Your task to perform on an android device: What's a good restaurant in New York? Image 0: 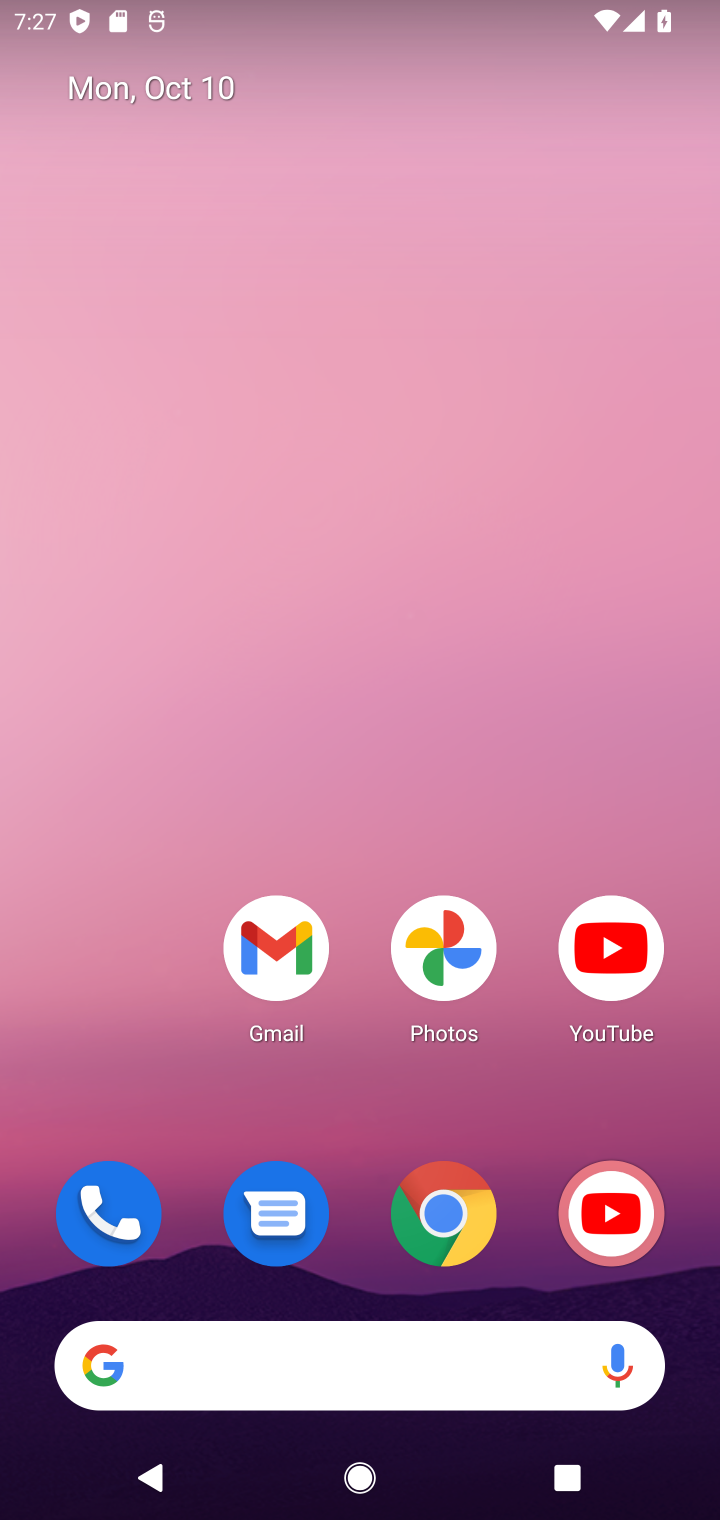
Step 0: click (169, 1372)
Your task to perform on an android device: What's a good restaurant in New York? Image 1: 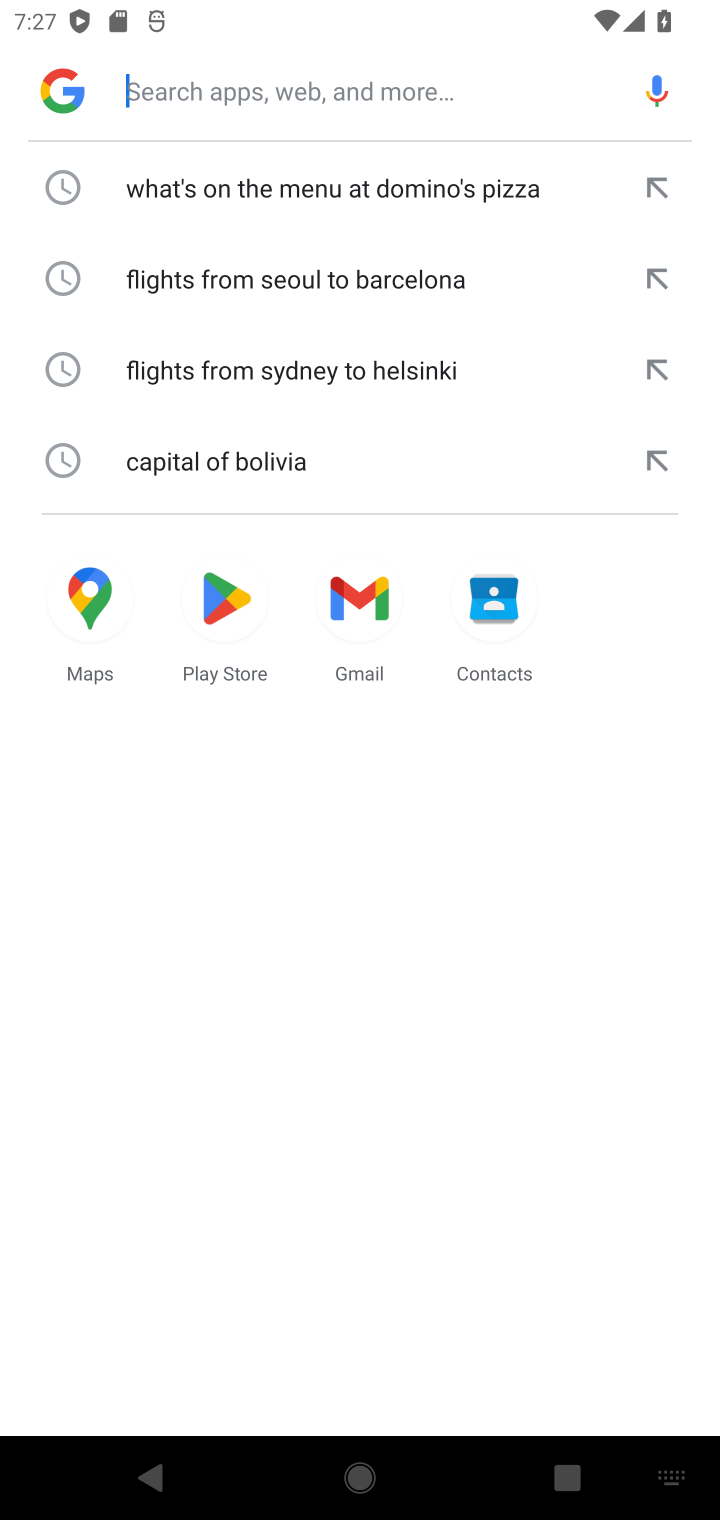
Step 1: click (225, 92)
Your task to perform on an android device: What's a good restaurant in New York? Image 2: 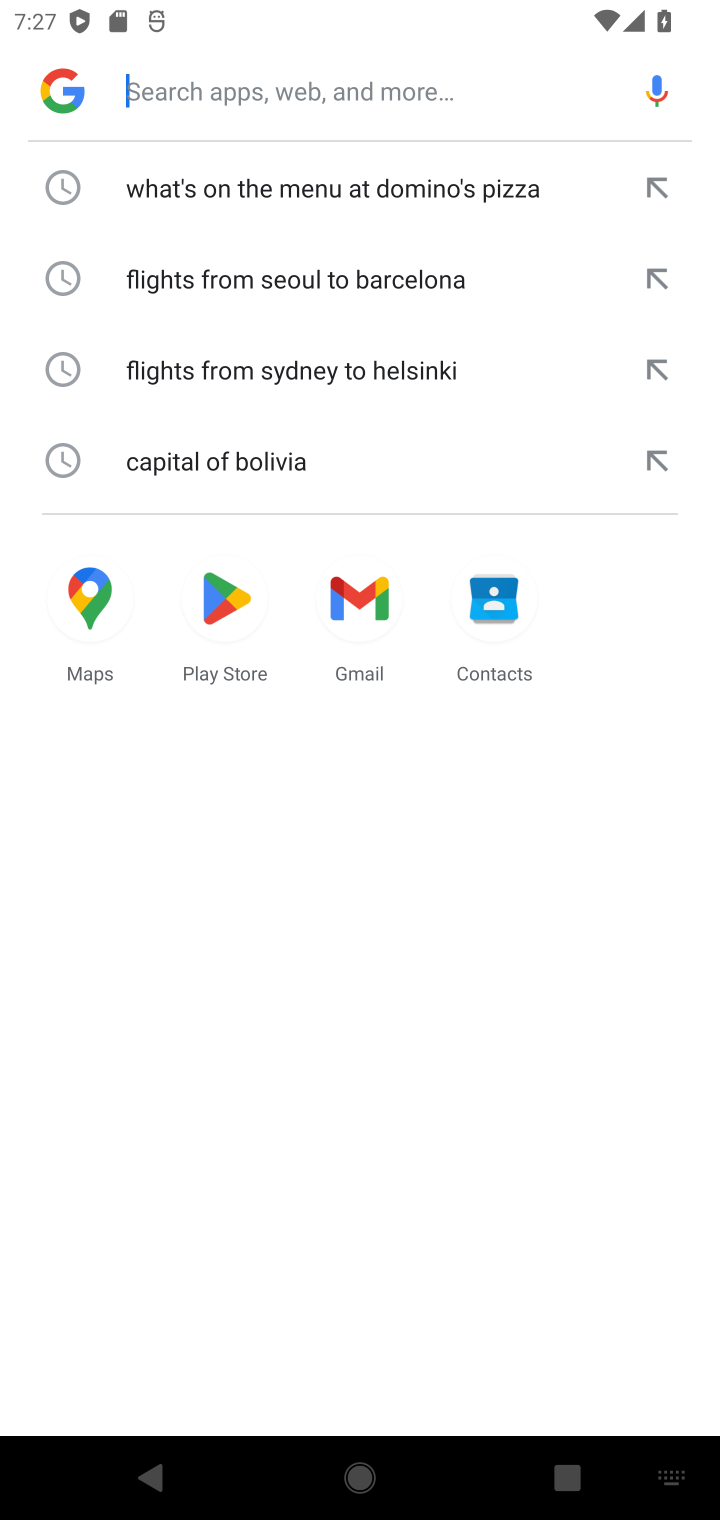
Step 2: type "What's a good restaurant in New York?"
Your task to perform on an android device: What's a good restaurant in New York? Image 3: 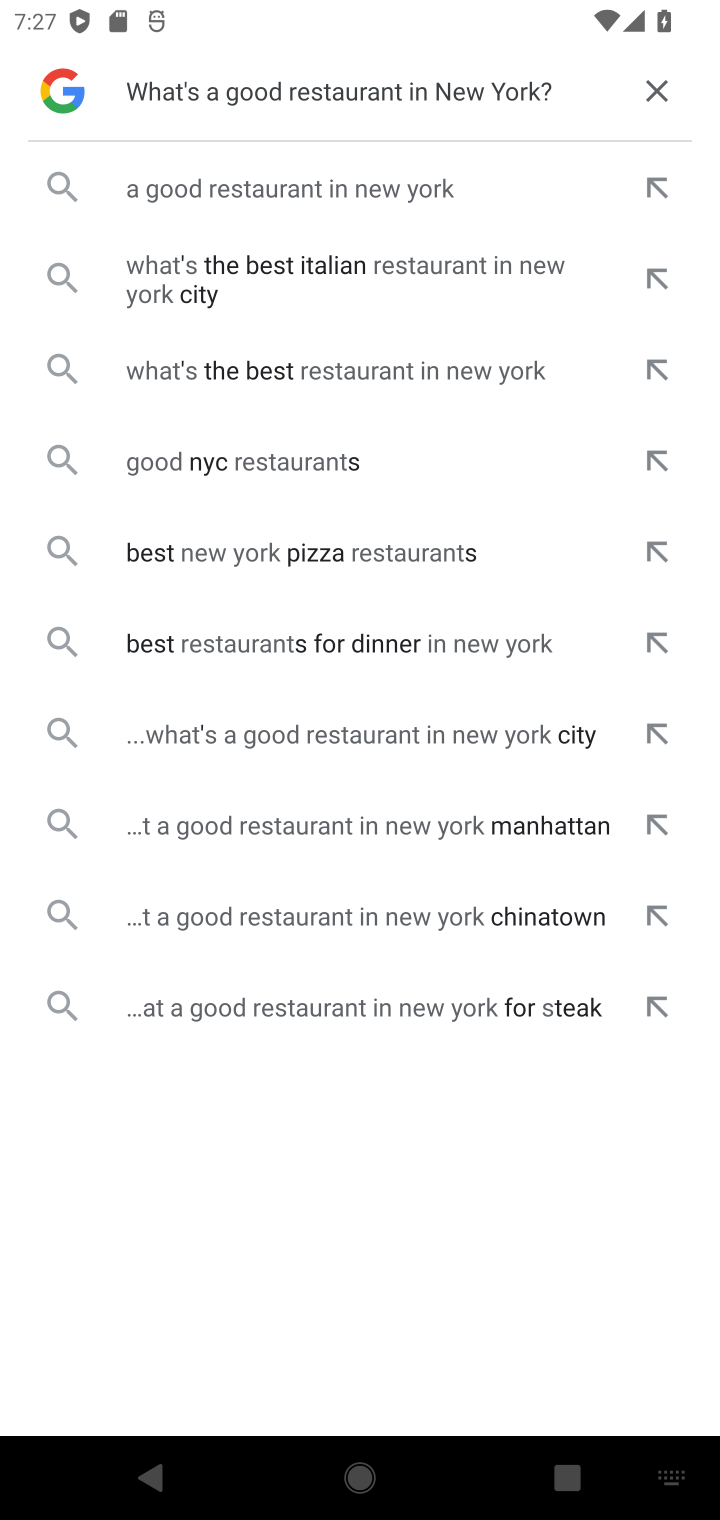
Step 3: click (308, 164)
Your task to perform on an android device: What's a good restaurant in New York? Image 4: 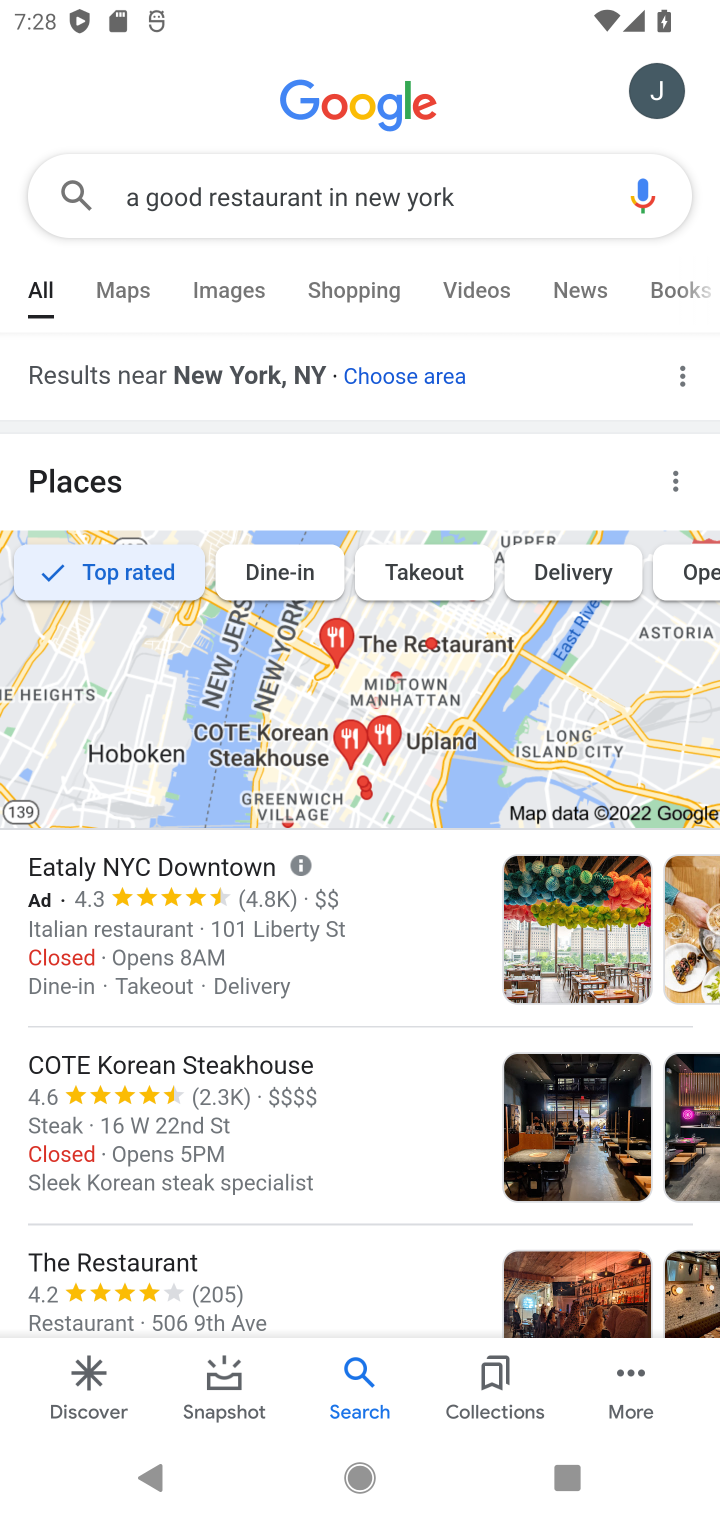
Step 4: task complete